Your task to perform on an android device: Open battery settings Image 0: 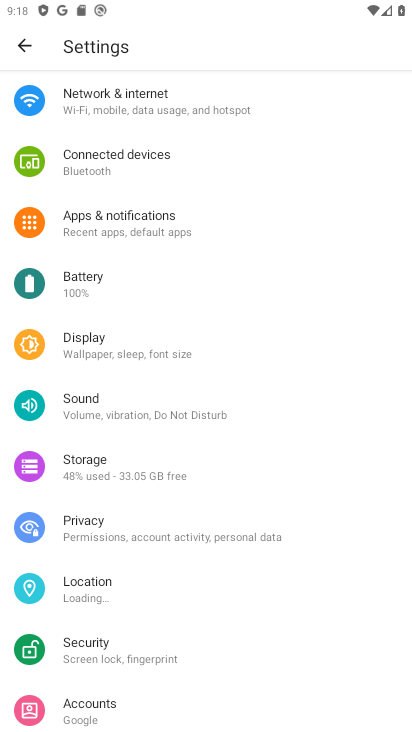
Step 0: press home button
Your task to perform on an android device: Open battery settings Image 1: 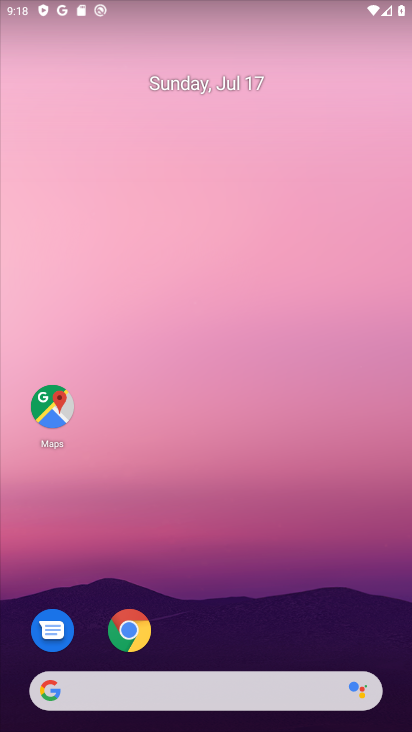
Step 1: drag from (221, 654) to (218, 43)
Your task to perform on an android device: Open battery settings Image 2: 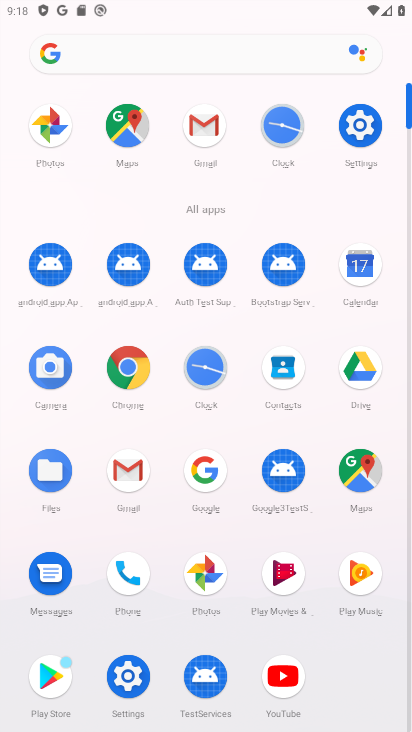
Step 2: click (357, 118)
Your task to perform on an android device: Open battery settings Image 3: 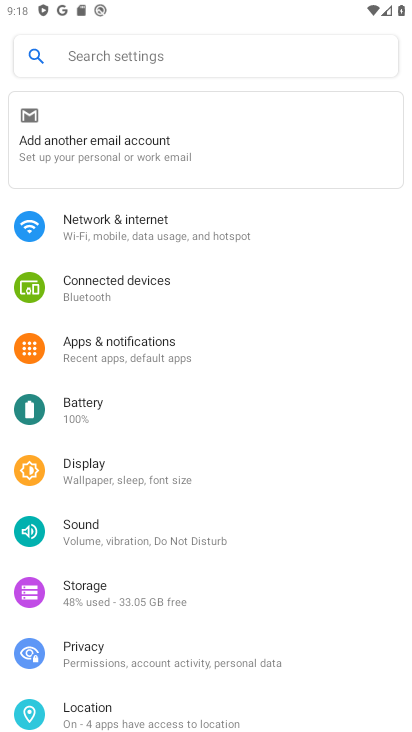
Step 3: click (112, 405)
Your task to perform on an android device: Open battery settings Image 4: 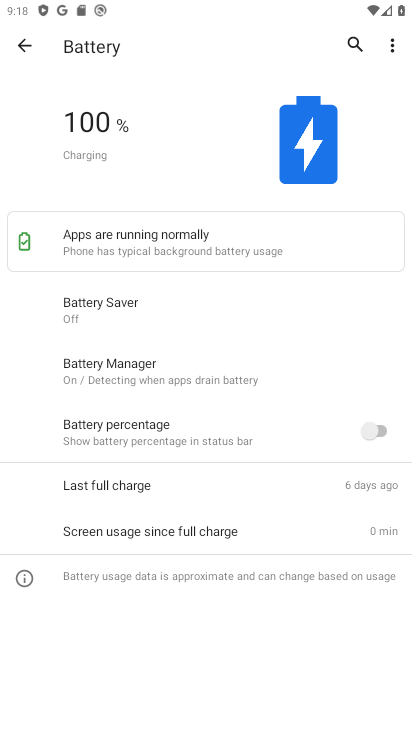
Step 4: task complete